Your task to perform on an android device: Search for seafood restaurants on Google Maps Image 0: 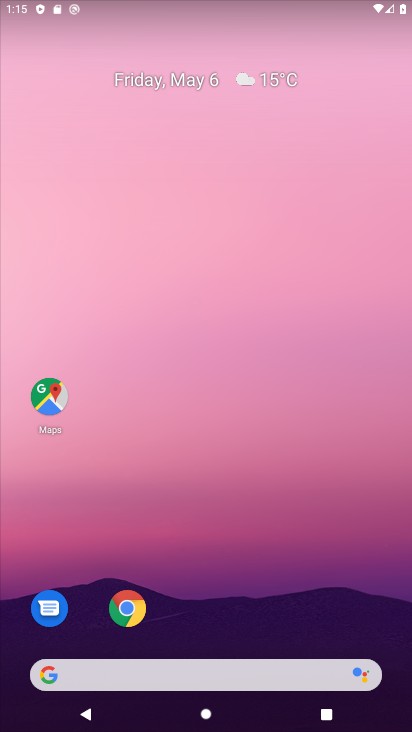
Step 0: drag from (247, 625) to (270, 669)
Your task to perform on an android device: Search for seafood restaurants on Google Maps Image 1: 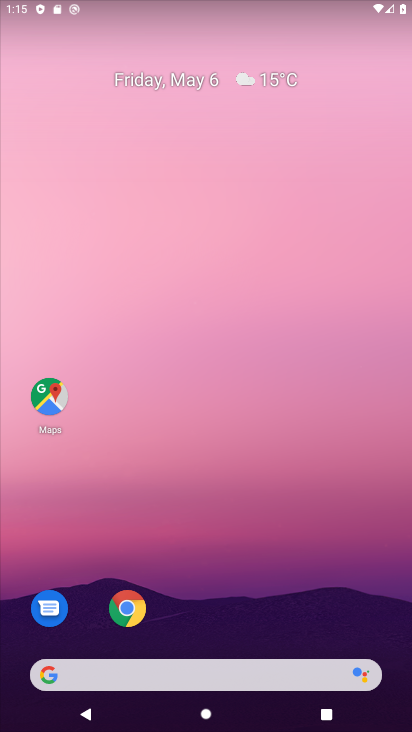
Step 1: click (39, 417)
Your task to perform on an android device: Search for seafood restaurants on Google Maps Image 2: 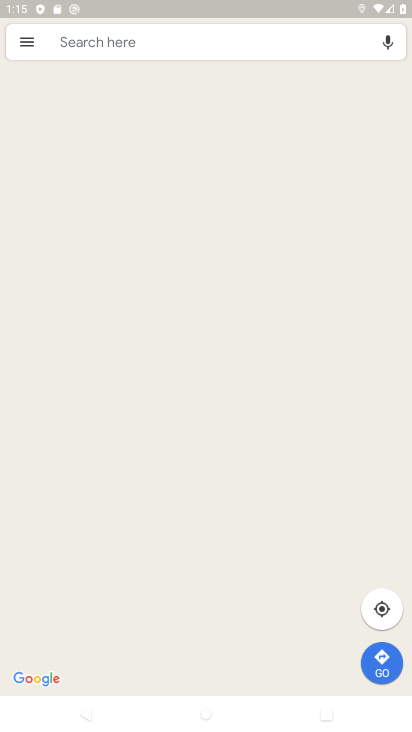
Step 2: click (252, 47)
Your task to perform on an android device: Search for seafood restaurants on Google Maps Image 3: 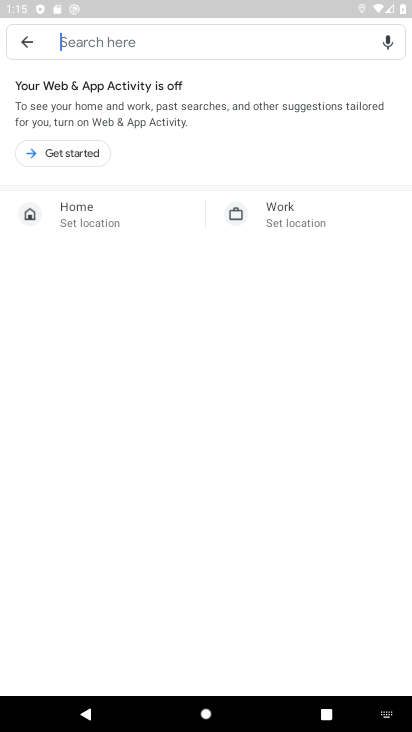
Step 3: type "seafood restaurants "
Your task to perform on an android device: Search for seafood restaurants on Google Maps Image 4: 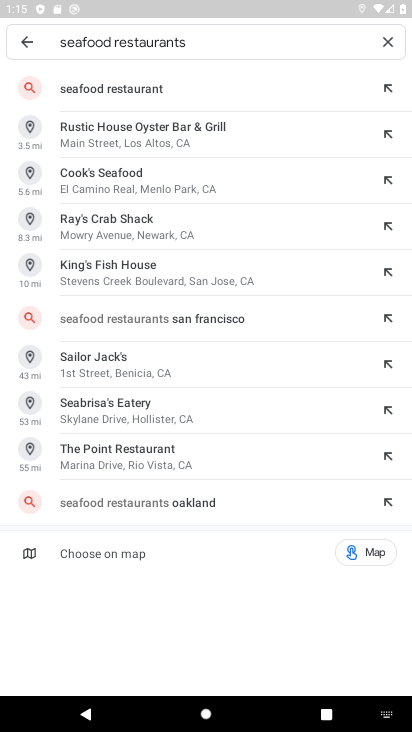
Step 4: click (100, 83)
Your task to perform on an android device: Search for seafood restaurants on Google Maps Image 5: 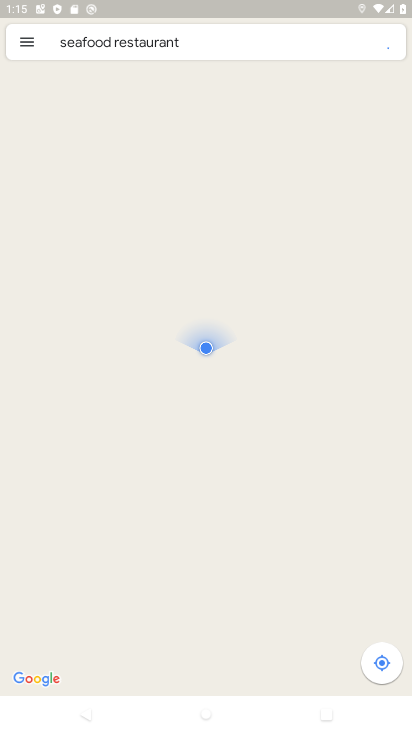
Step 5: task complete